Your task to perform on an android device: Open calendar and show me the second week of next month Image 0: 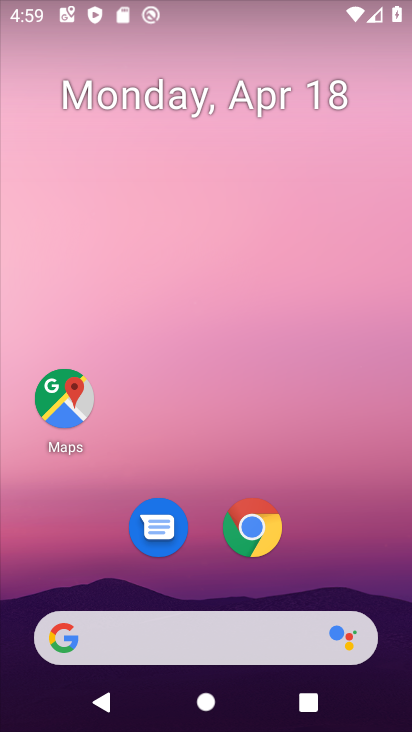
Step 0: drag from (247, 606) to (235, 58)
Your task to perform on an android device: Open calendar and show me the second week of next month Image 1: 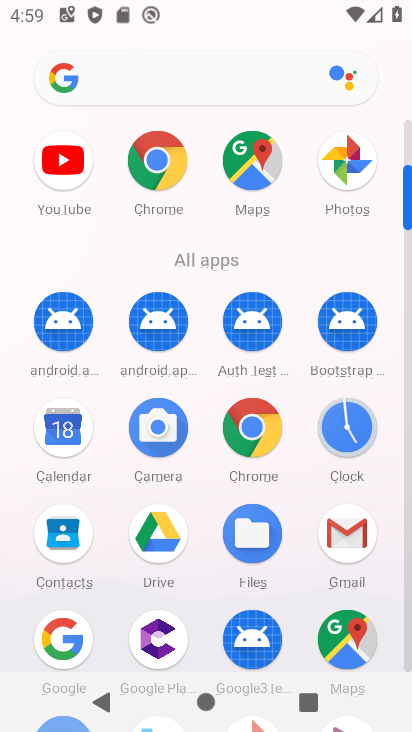
Step 1: click (66, 429)
Your task to perform on an android device: Open calendar and show me the second week of next month Image 2: 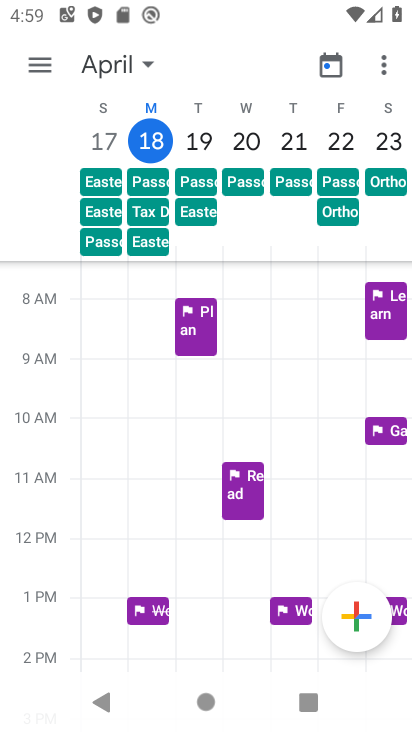
Step 2: click (135, 84)
Your task to perform on an android device: Open calendar and show me the second week of next month Image 3: 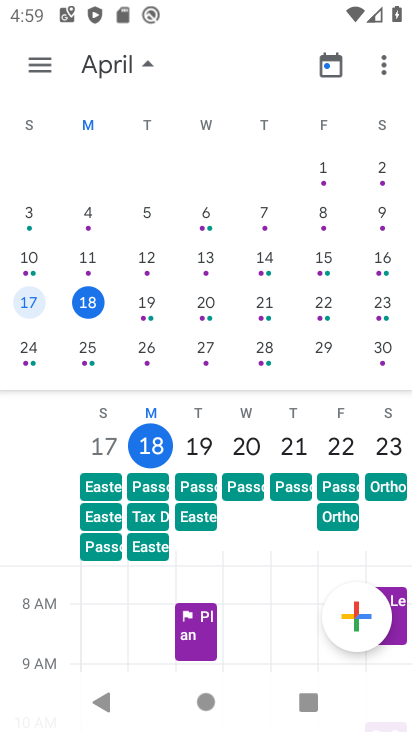
Step 3: drag from (394, 226) to (1, 304)
Your task to perform on an android device: Open calendar and show me the second week of next month Image 4: 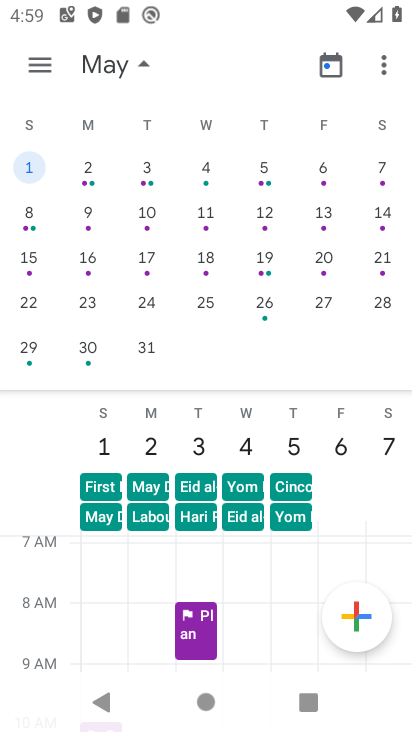
Step 4: click (26, 222)
Your task to perform on an android device: Open calendar and show me the second week of next month Image 5: 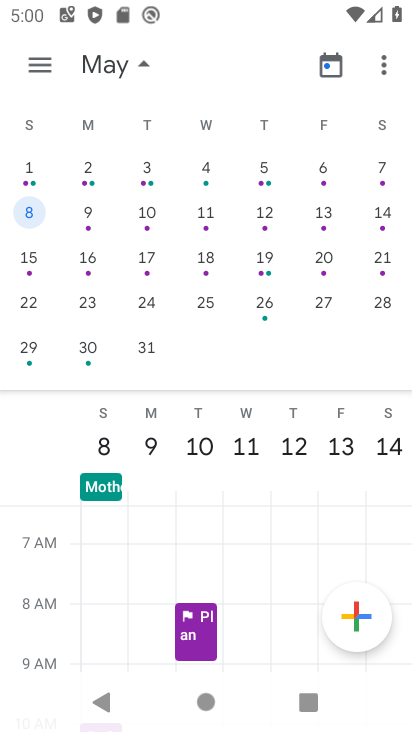
Step 5: task complete